Your task to perform on an android device: open wifi settings Image 0: 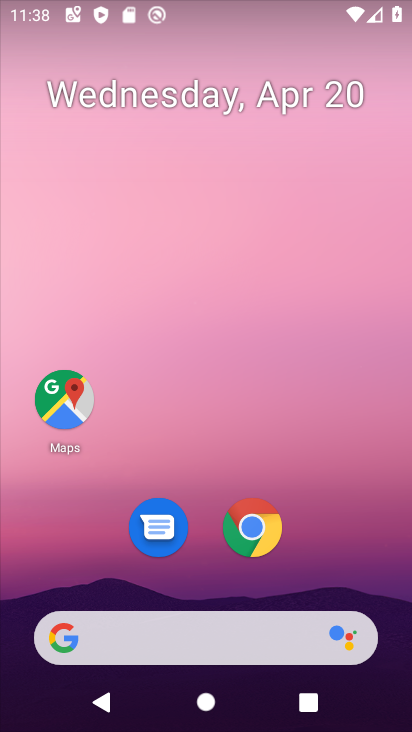
Step 0: drag from (313, 545) to (282, 113)
Your task to perform on an android device: open wifi settings Image 1: 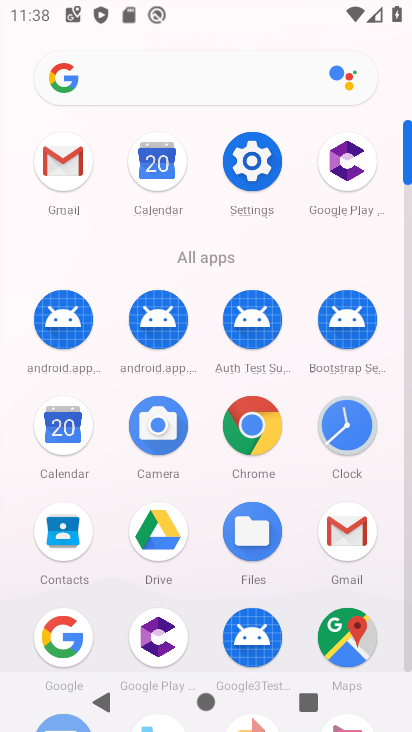
Step 1: click (240, 171)
Your task to perform on an android device: open wifi settings Image 2: 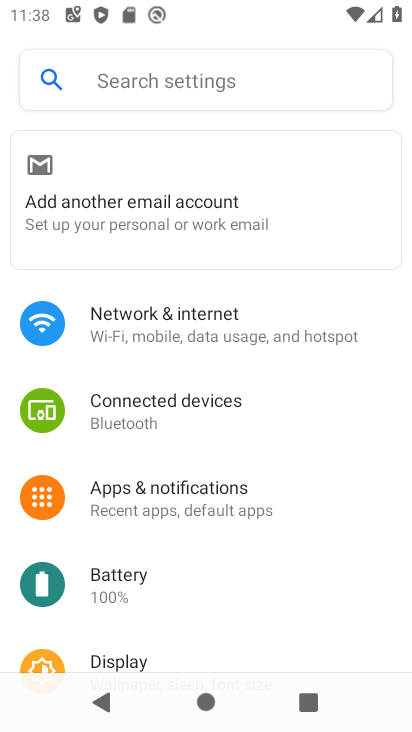
Step 2: click (215, 334)
Your task to perform on an android device: open wifi settings Image 3: 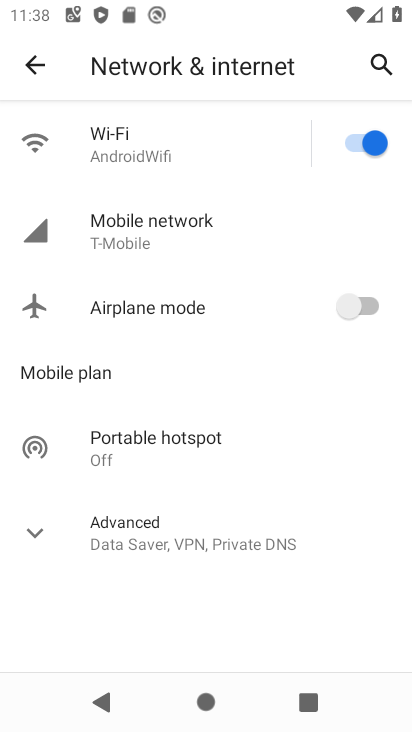
Step 3: click (173, 162)
Your task to perform on an android device: open wifi settings Image 4: 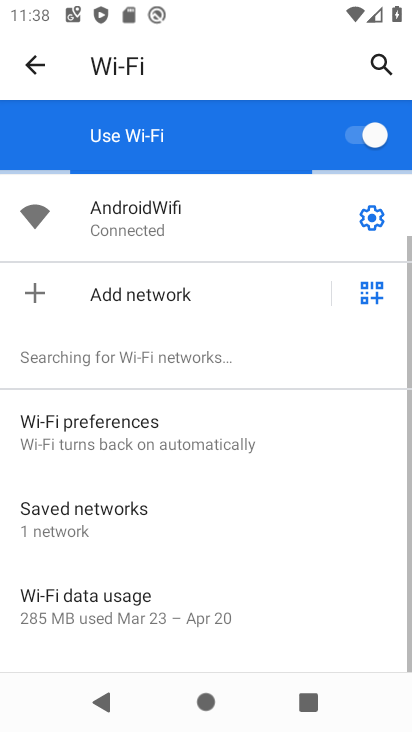
Step 4: click (369, 216)
Your task to perform on an android device: open wifi settings Image 5: 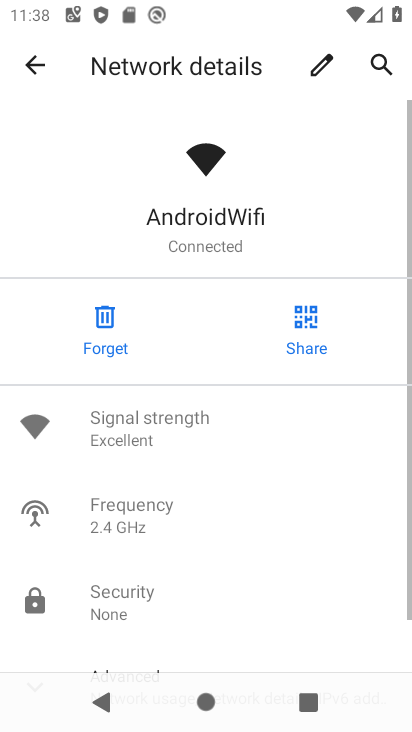
Step 5: task complete